Your task to perform on an android device: Open Google Maps Image 0: 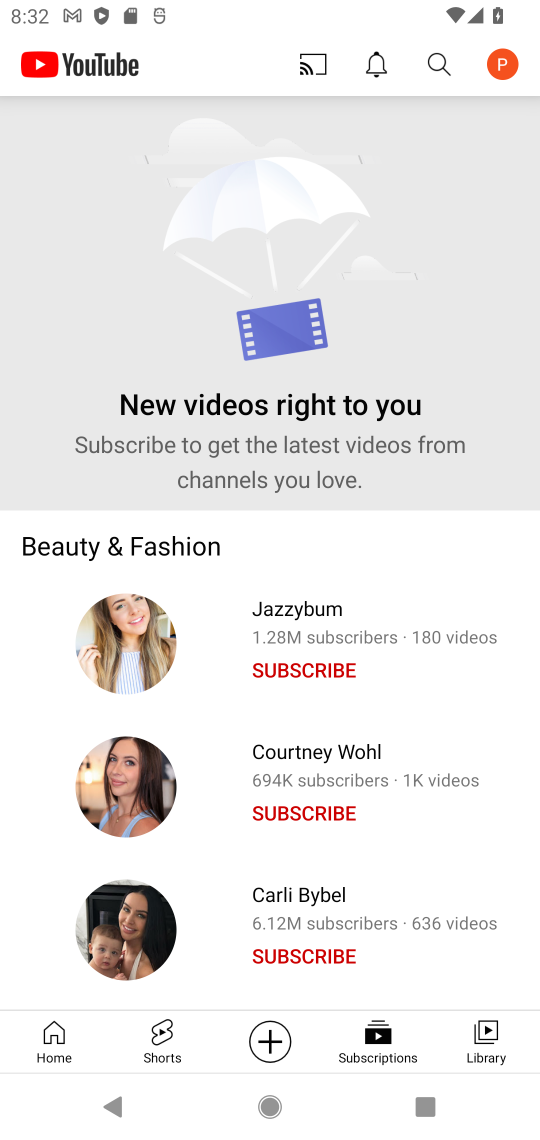
Step 0: press home button
Your task to perform on an android device: Open Google Maps Image 1: 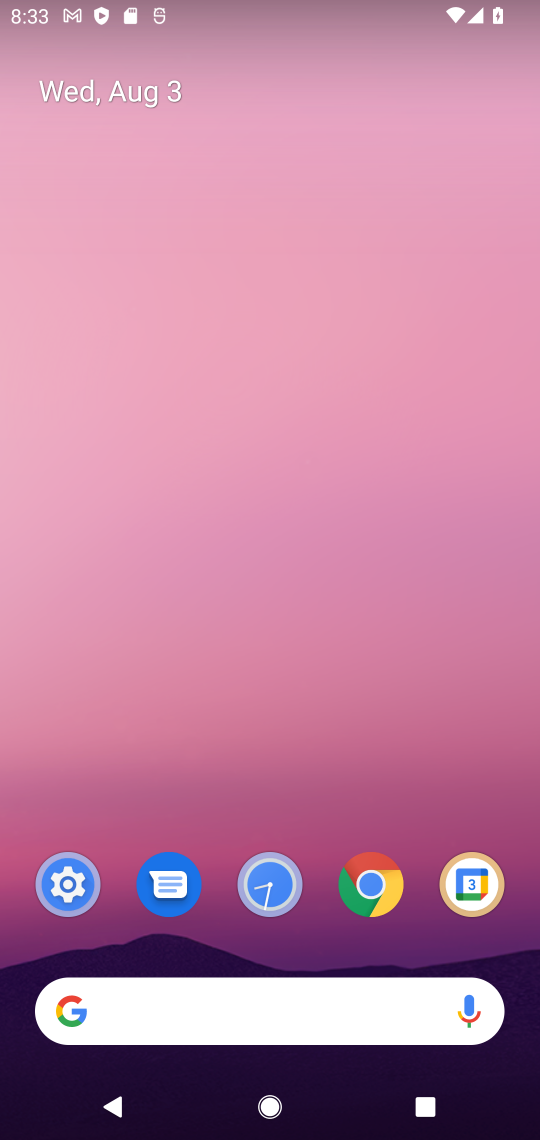
Step 1: drag from (97, 1040) to (334, 29)
Your task to perform on an android device: Open Google Maps Image 2: 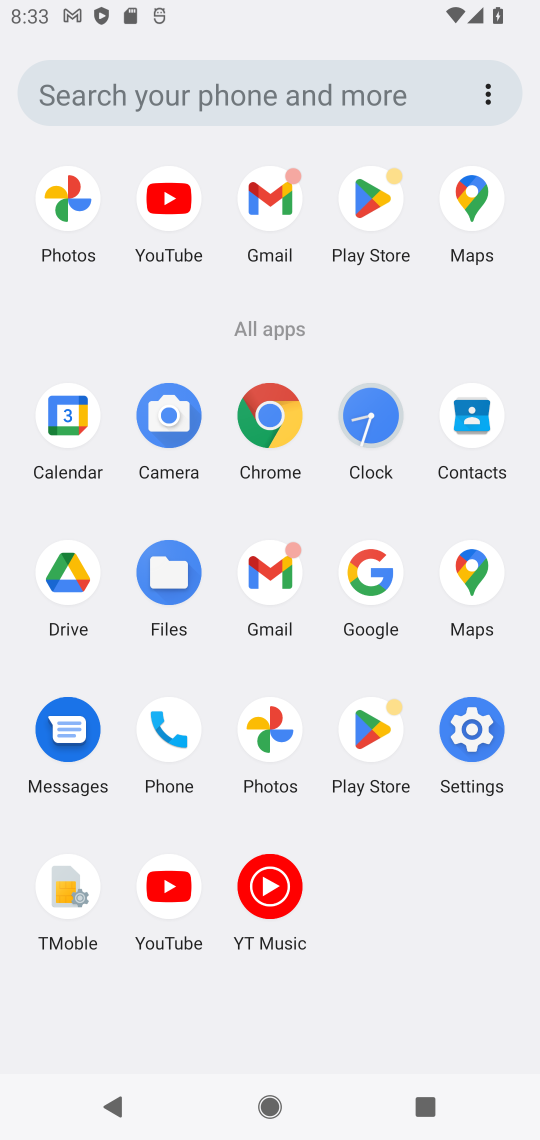
Step 2: click (461, 597)
Your task to perform on an android device: Open Google Maps Image 3: 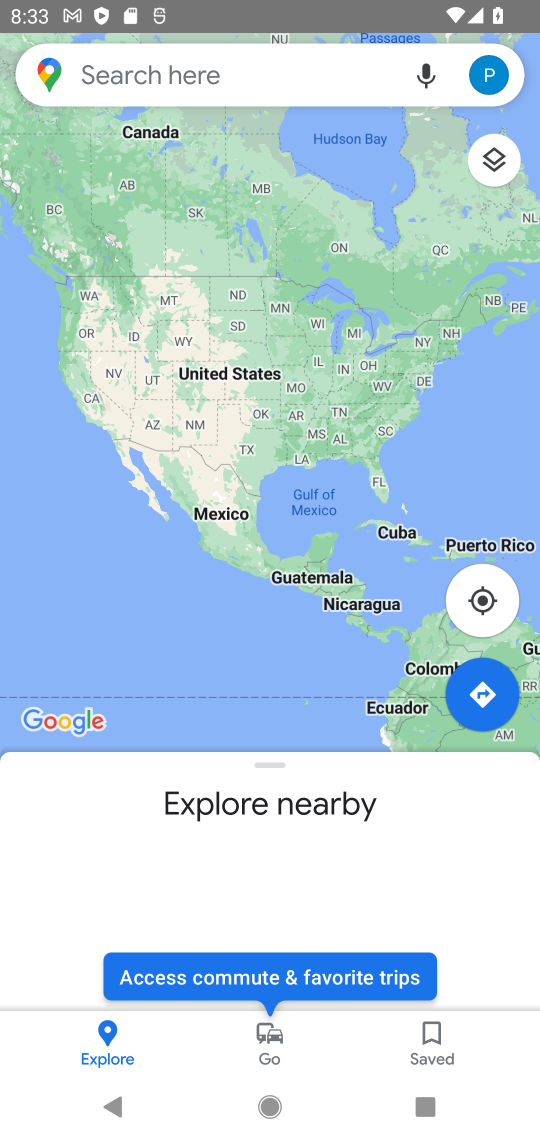
Step 3: task complete